Your task to perform on an android device: delete browsing data in the chrome app Image 0: 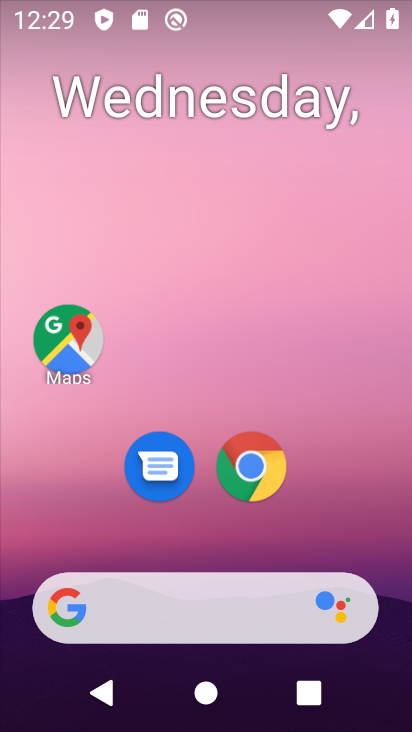
Step 0: click (251, 466)
Your task to perform on an android device: delete browsing data in the chrome app Image 1: 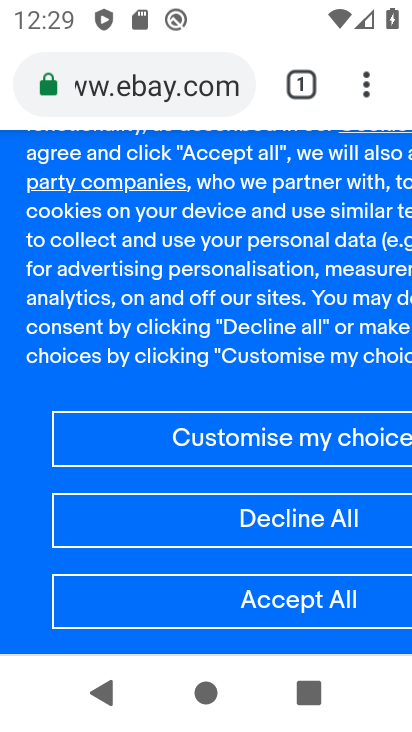
Step 1: click (366, 82)
Your task to perform on an android device: delete browsing data in the chrome app Image 2: 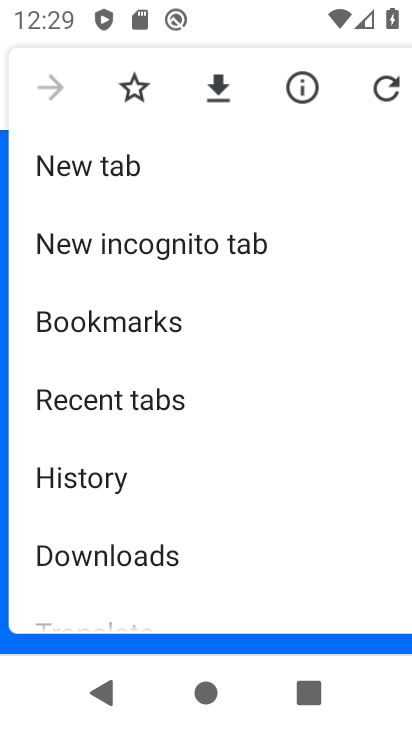
Step 2: drag from (174, 482) to (263, 311)
Your task to perform on an android device: delete browsing data in the chrome app Image 3: 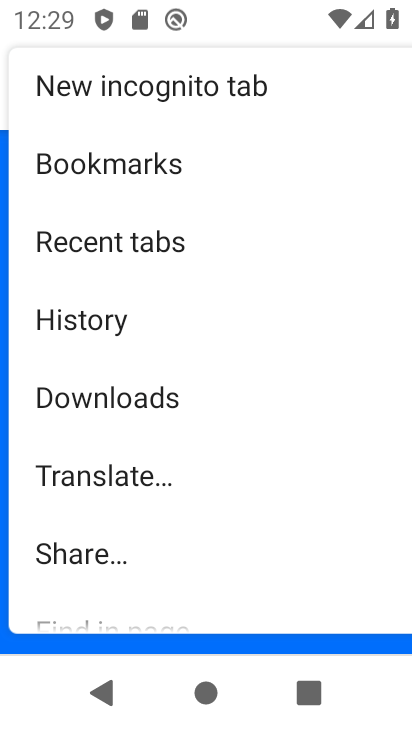
Step 3: drag from (153, 536) to (190, 429)
Your task to perform on an android device: delete browsing data in the chrome app Image 4: 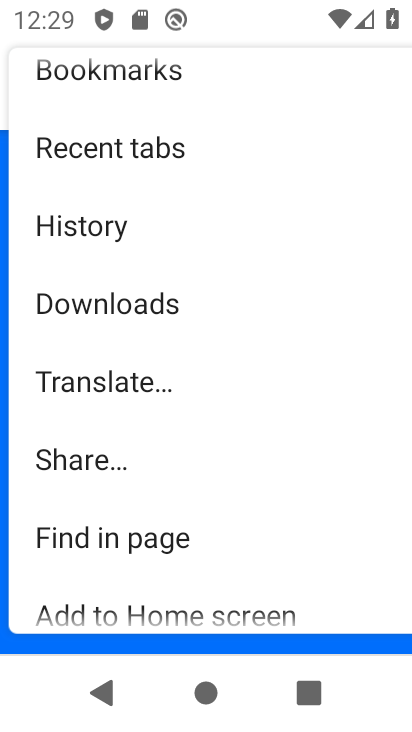
Step 4: drag from (167, 569) to (194, 471)
Your task to perform on an android device: delete browsing data in the chrome app Image 5: 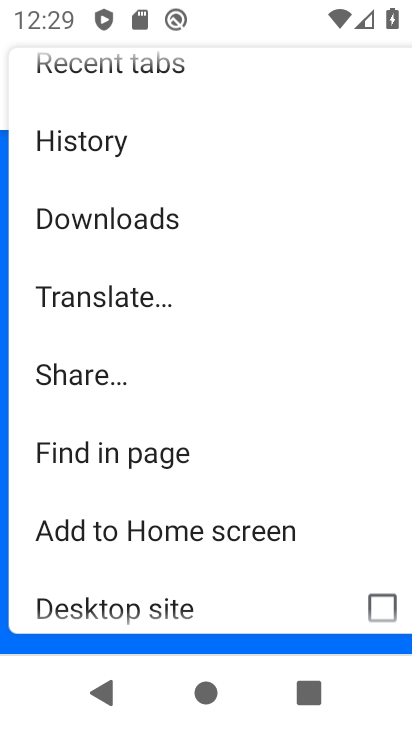
Step 5: drag from (168, 557) to (208, 452)
Your task to perform on an android device: delete browsing data in the chrome app Image 6: 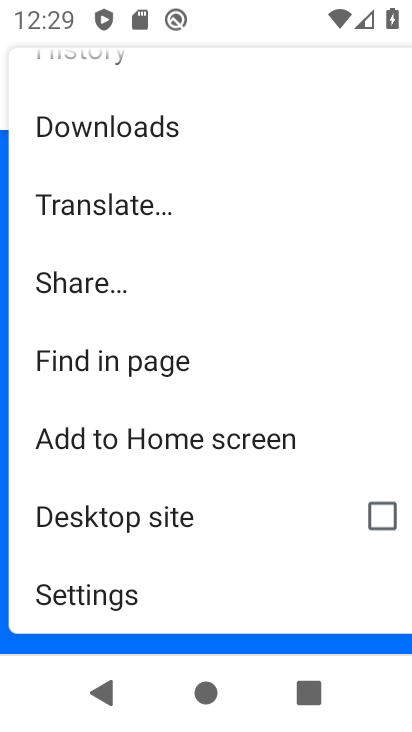
Step 6: drag from (164, 554) to (293, 407)
Your task to perform on an android device: delete browsing data in the chrome app Image 7: 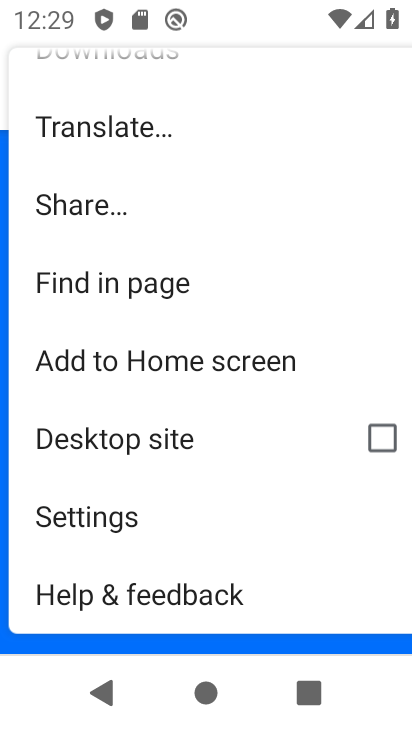
Step 7: click (126, 515)
Your task to perform on an android device: delete browsing data in the chrome app Image 8: 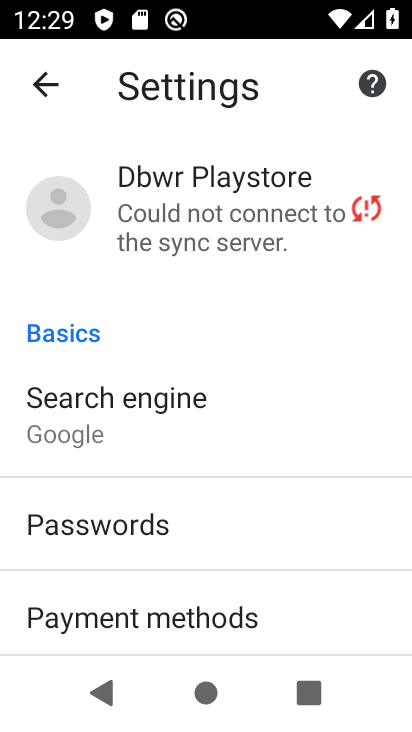
Step 8: drag from (211, 552) to (248, 405)
Your task to perform on an android device: delete browsing data in the chrome app Image 9: 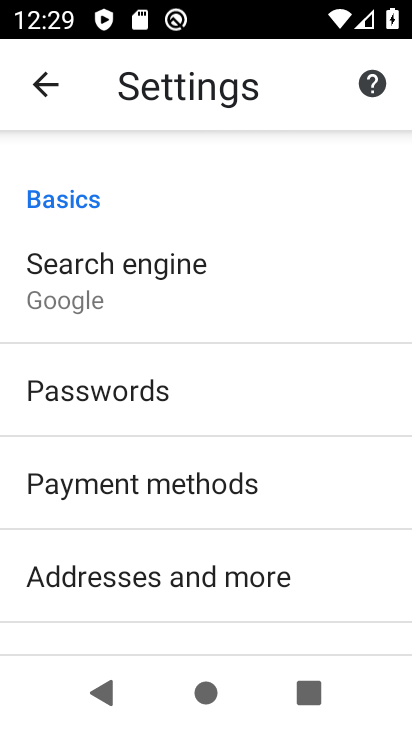
Step 9: drag from (195, 571) to (259, 444)
Your task to perform on an android device: delete browsing data in the chrome app Image 10: 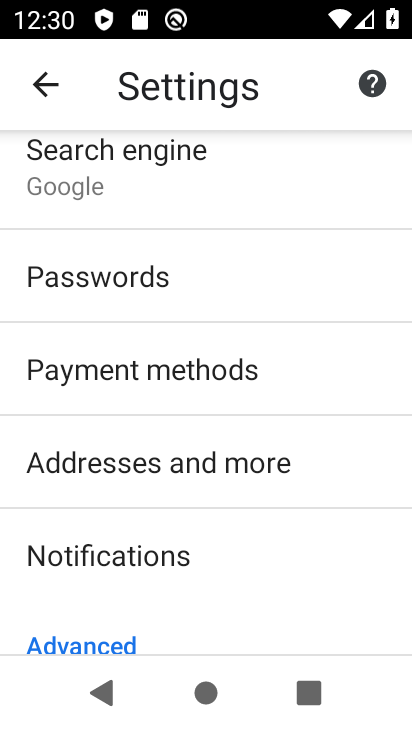
Step 10: drag from (214, 582) to (245, 438)
Your task to perform on an android device: delete browsing data in the chrome app Image 11: 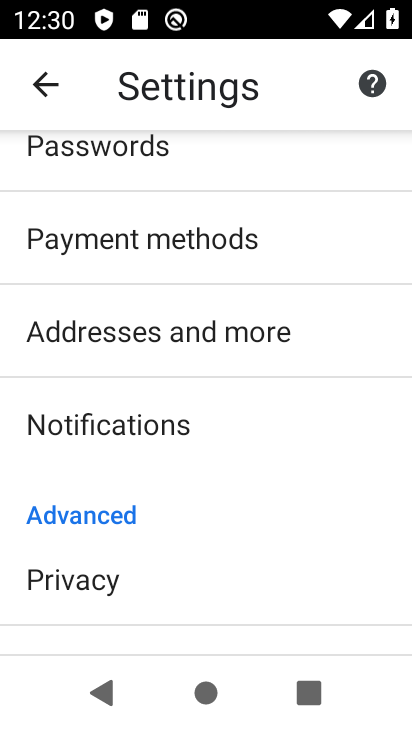
Step 11: click (100, 580)
Your task to perform on an android device: delete browsing data in the chrome app Image 12: 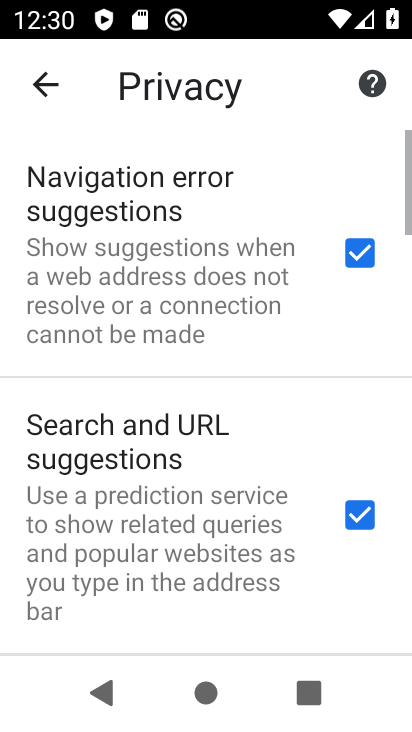
Step 12: drag from (130, 550) to (169, 419)
Your task to perform on an android device: delete browsing data in the chrome app Image 13: 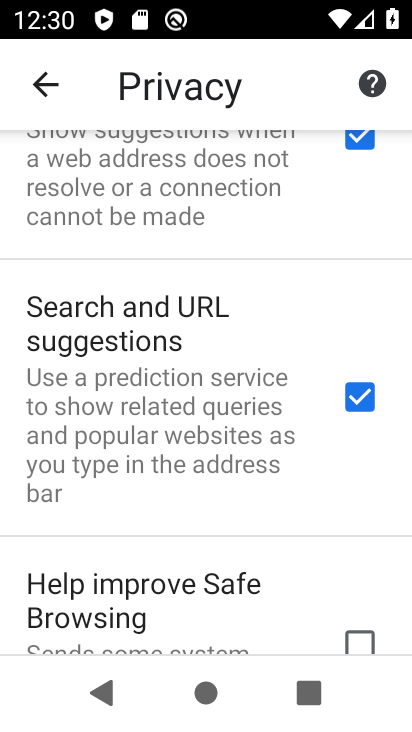
Step 13: drag from (160, 583) to (247, 425)
Your task to perform on an android device: delete browsing data in the chrome app Image 14: 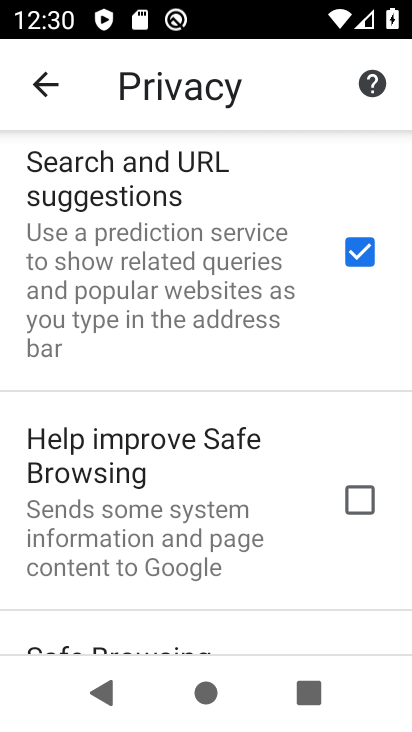
Step 14: drag from (164, 616) to (229, 467)
Your task to perform on an android device: delete browsing data in the chrome app Image 15: 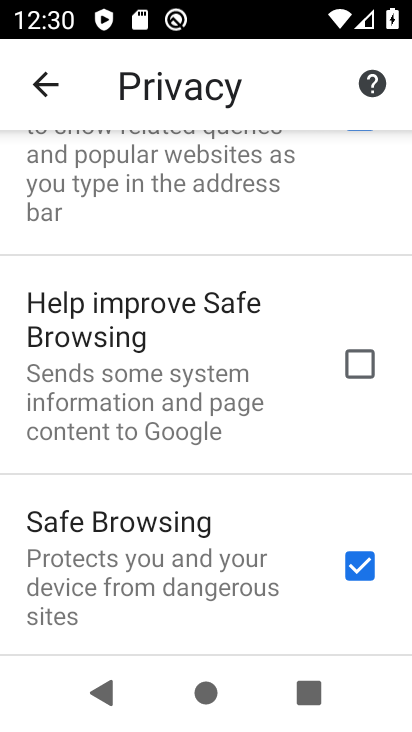
Step 15: drag from (176, 612) to (199, 418)
Your task to perform on an android device: delete browsing data in the chrome app Image 16: 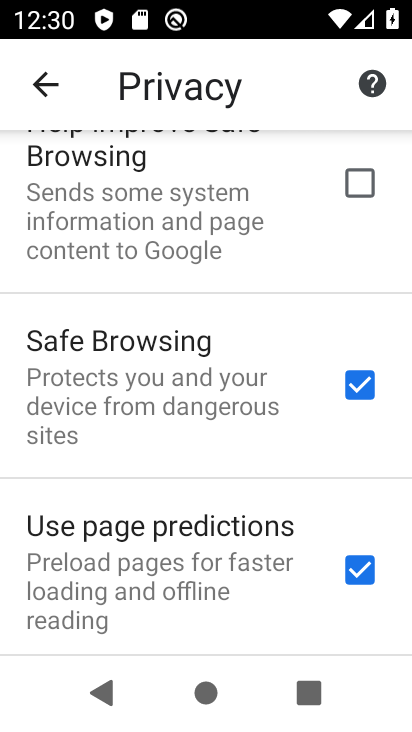
Step 16: drag from (156, 549) to (206, 399)
Your task to perform on an android device: delete browsing data in the chrome app Image 17: 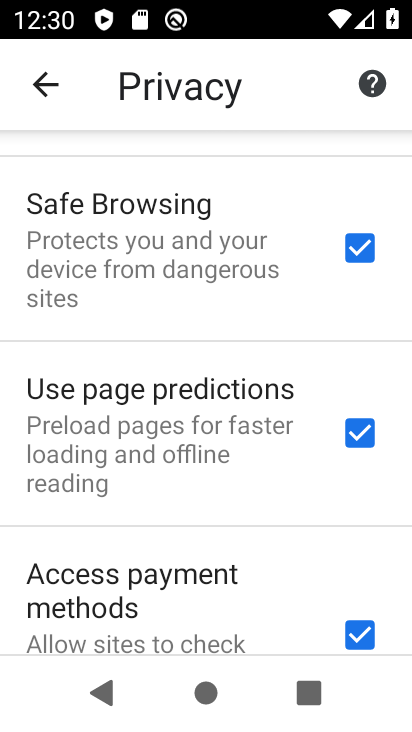
Step 17: drag from (148, 577) to (174, 453)
Your task to perform on an android device: delete browsing data in the chrome app Image 18: 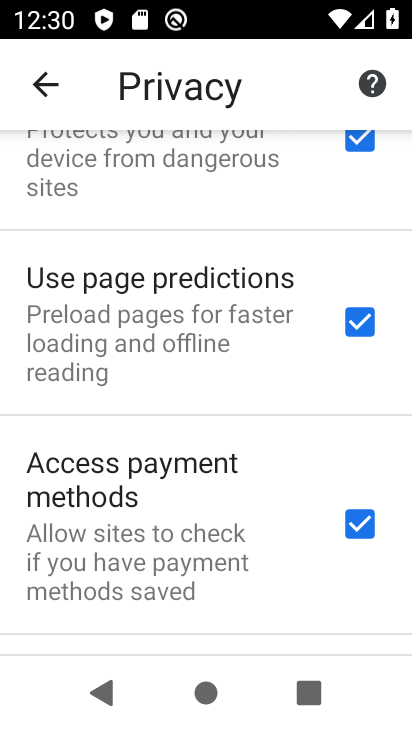
Step 18: drag from (149, 564) to (195, 359)
Your task to perform on an android device: delete browsing data in the chrome app Image 19: 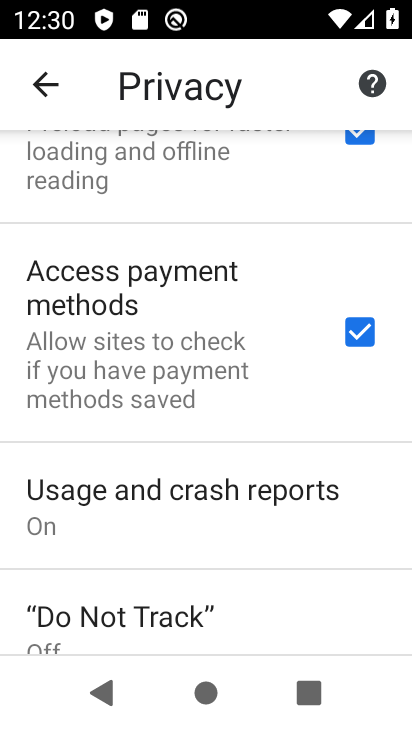
Step 19: drag from (160, 538) to (214, 359)
Your task to perform on an android device: delete browsing data in the chrome app Image 20: 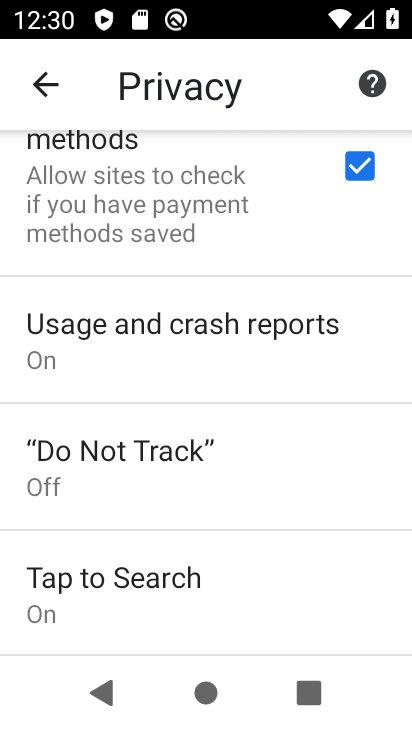
Step 20: drag from (169, 493) to (204, 317)
Your task to perform on an android device: delete browsing data in the chrome app Image 21: 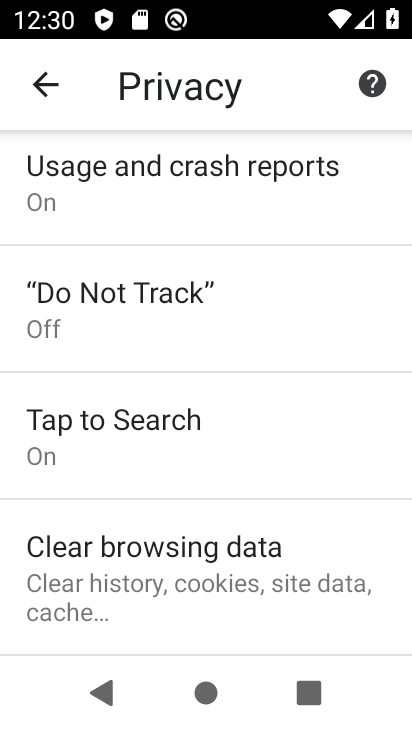
Step 21: click (158, 546)
Your task to perform on an android device: delete browsing data in the chrome app Image 22: 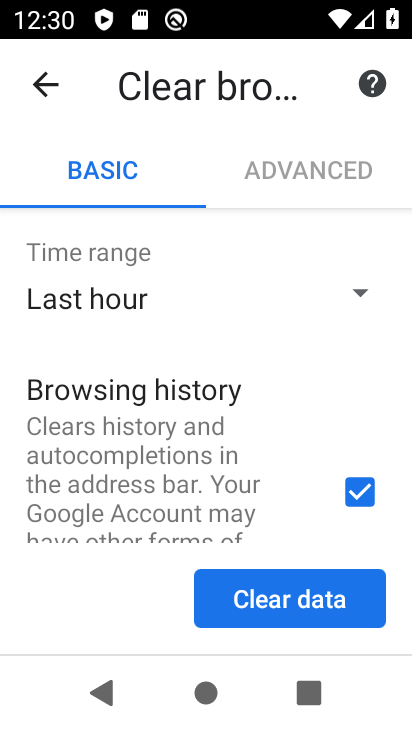
Step 22: click (268, 604)
Your task to perform on an android device: delete browsing data in the chrome app Image 23: 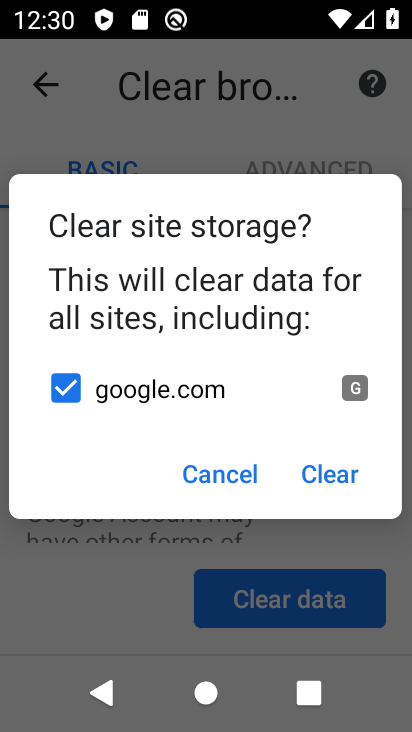
Step 23: click (340, 482)
Your task to perform on an android device: delete browsing data in the chrome app Image 24: 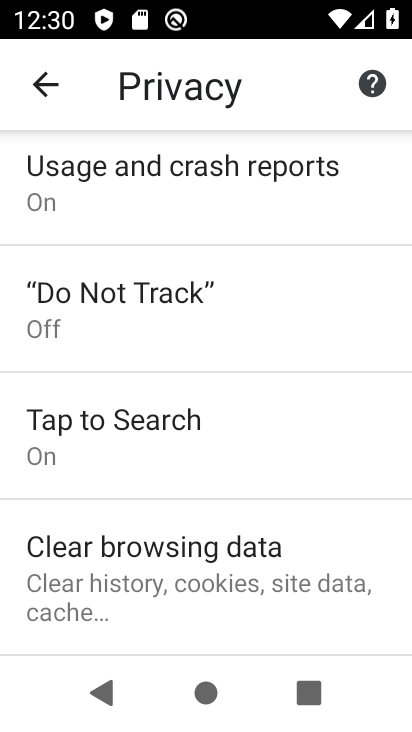
Step 24: task complete